Your task to perform on an android device: turn pop-ups on in chrome Image 0: 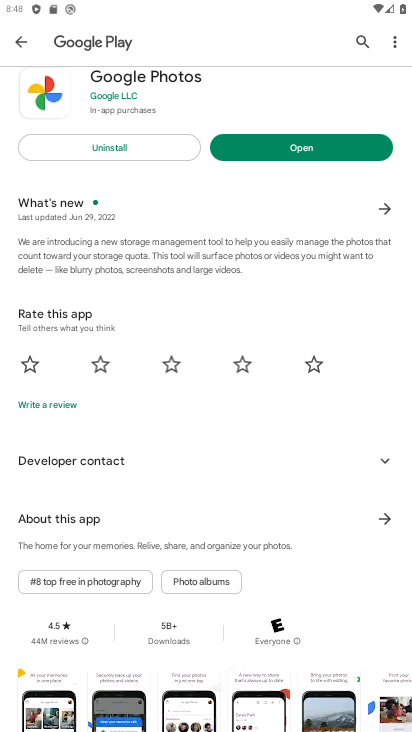
Step 0: drag from (193, 407) to (265, 266)
Your task to perform on an android device: turn pop-ups on in chrome Image 1: 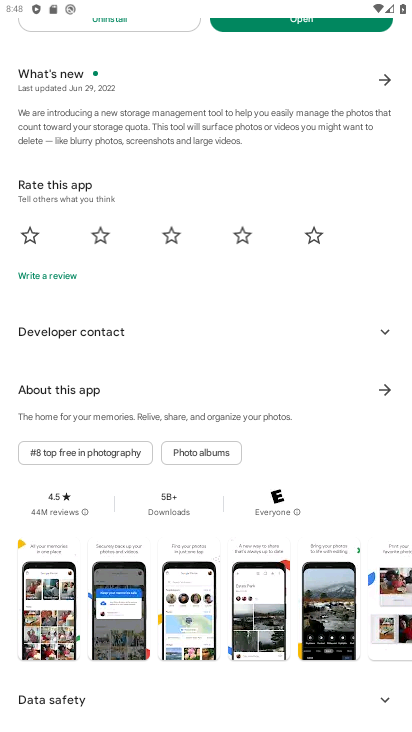
Step 1: press home button
Your task to perform on an android device: turn pop-ups on in chrome Image 2: 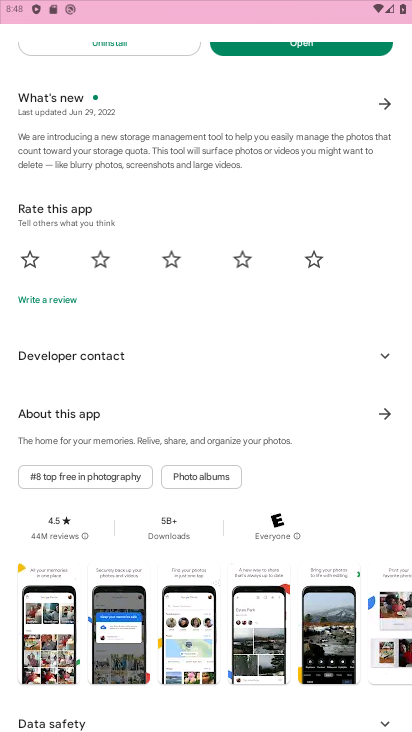
Step 2: drag from (285, 496) to (333, 159)
Your task to perform on an android device: turn pop-ups on in chrome Image 3: 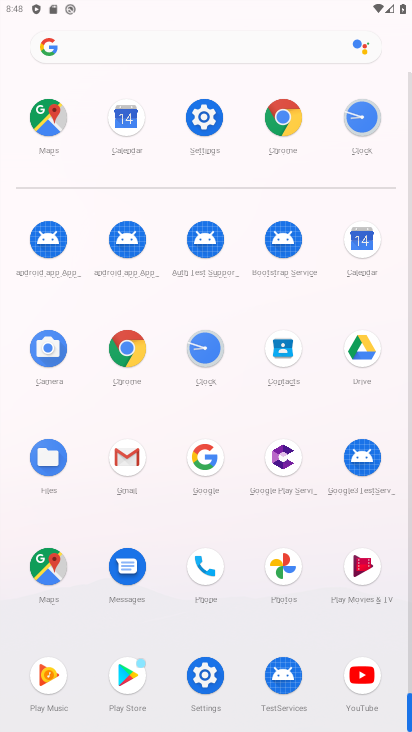
Step 3: click (284, 110)
Your task to perform on an android device: turn pop-ups on in chrome Image 4: 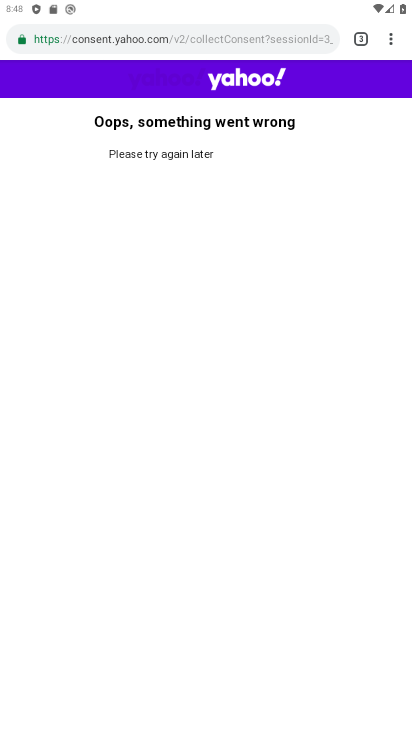
Step 4: drag from (136, 456) to (187, 243)
Your task to perform on an android device: turn pop-ups on in chrome Image 5: 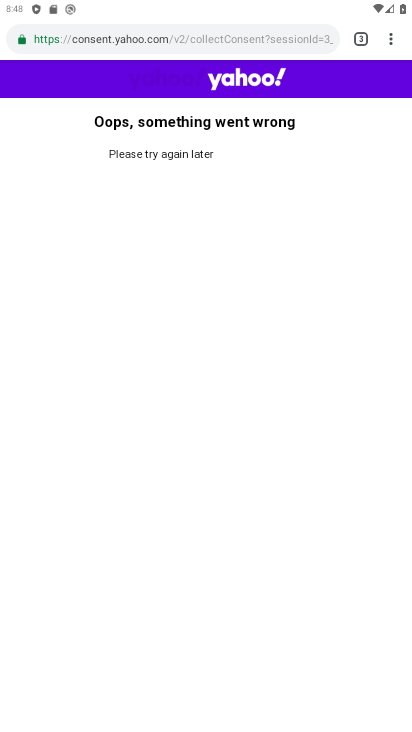
Step 5: click (390, 39)
Your task to perform on an android device: turn pop-ups on in chrome Image 6: 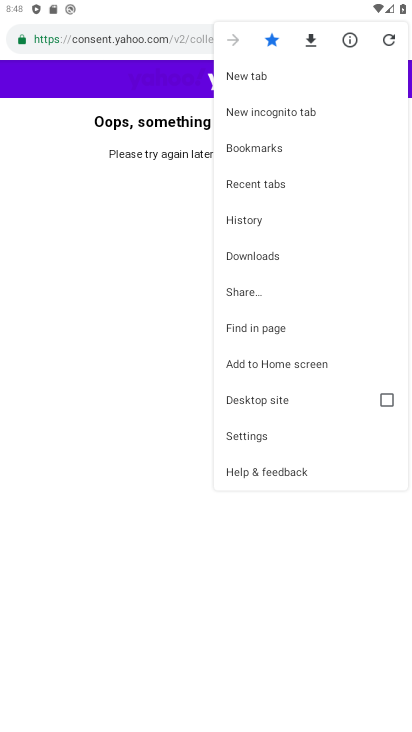
Step 6: click (257, 432)
Your task to perform on an android device: turn pop-ups on in chrome Image 7: 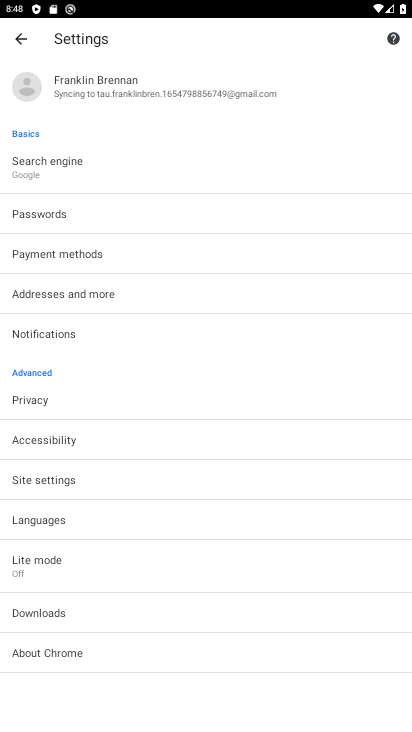
Step 7: click (69, 471)
Your task to perform on an android device: turn pop-ups on in chrome Image 8: 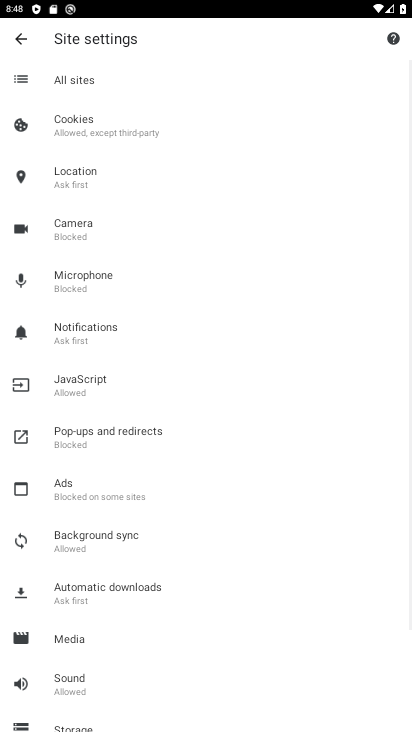
Step 8: click (105, 433)
Your task to perform on an android device: turn pop-ups on in chrome Image 9: 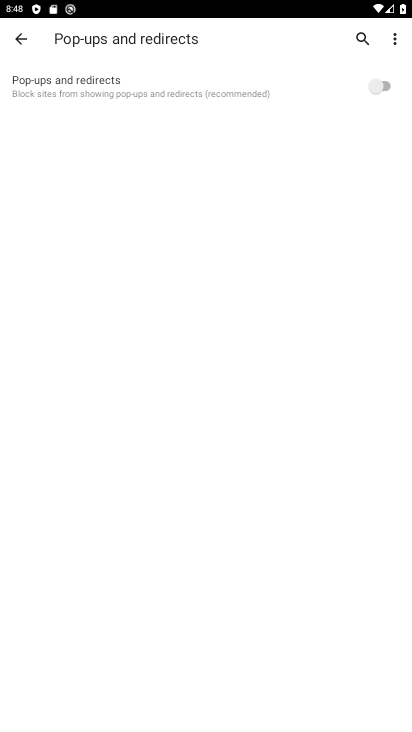
Step 9: drag from (153, 475) to (216, 228)
Your task to perform on an android device: turn pop-ups on in chrome Image 10: 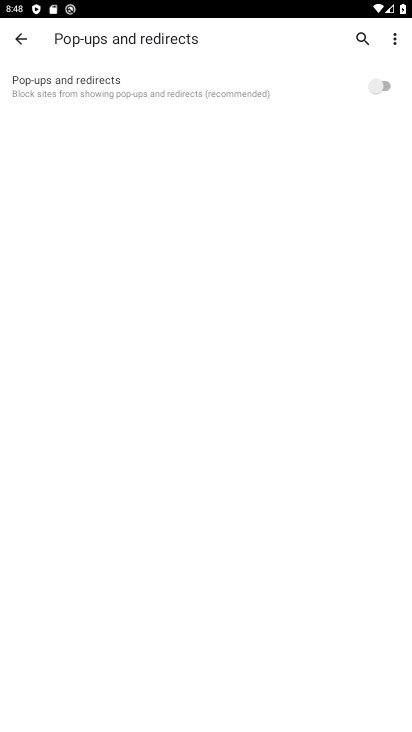
Step 10: click (377, 91)
Your task to perform on an android device: turn pop-ups on in chrome Image 11: 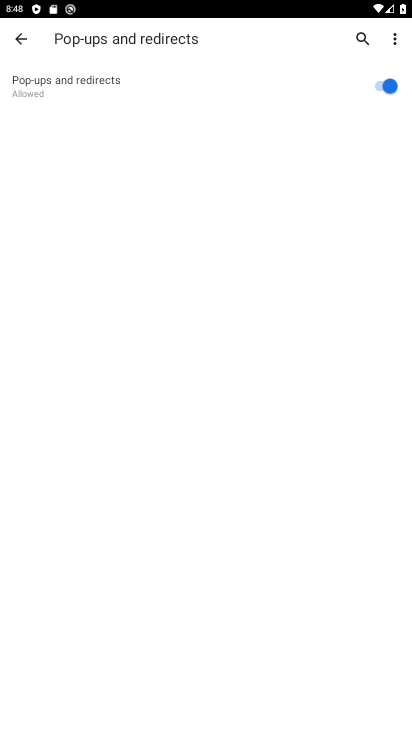
Step 11: task complete